Your task to perform on an android device: Open calendar and show me the third week of next month Image 0: 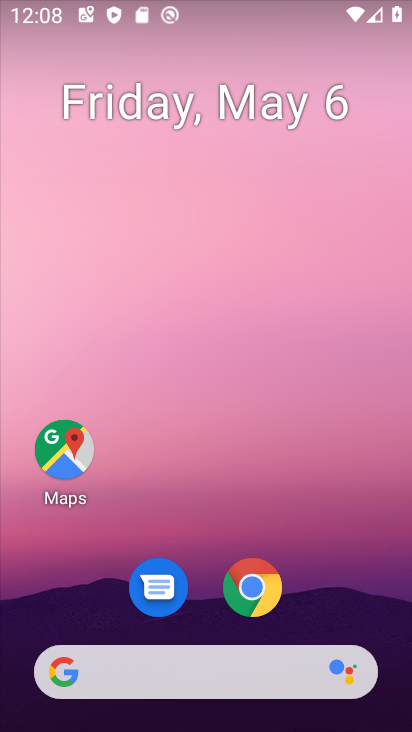
Step 0: drag from (191, 587) to (251, 135)
Your task to perform on an android device: Open calendar and show me the third week of next month Image 1: 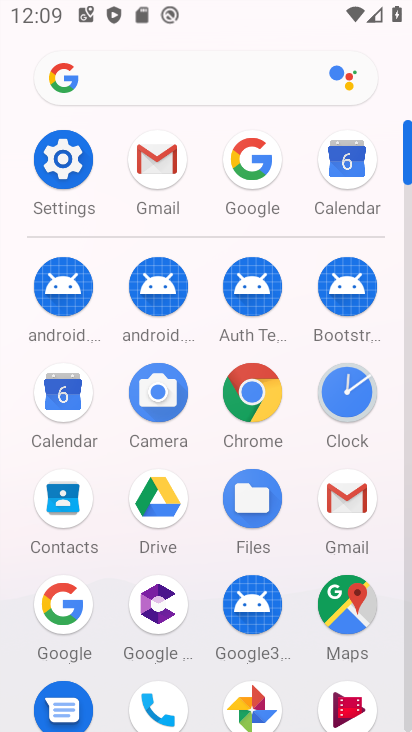
Step 1: click (56, 397)
Your task to perform on an android device: Open calendar and show me the third week of next month Image 2: 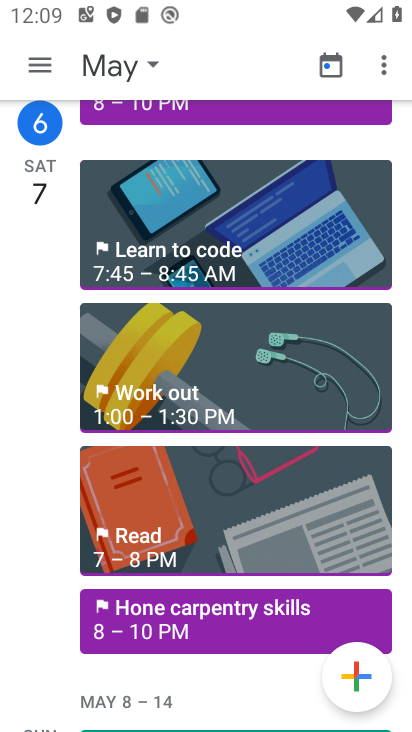
Step 2: click (145, 66)
Your task to perform on an android device: Open calendar and show me the third week of next month Image 3: 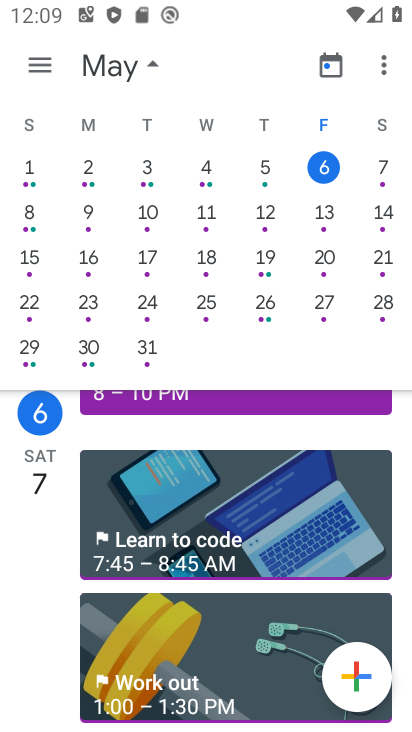
Step 3: drag from (368, 242) to (13, 219)
Your task to perform on an android device: Open calendar and show me the third week of next month Image 4: 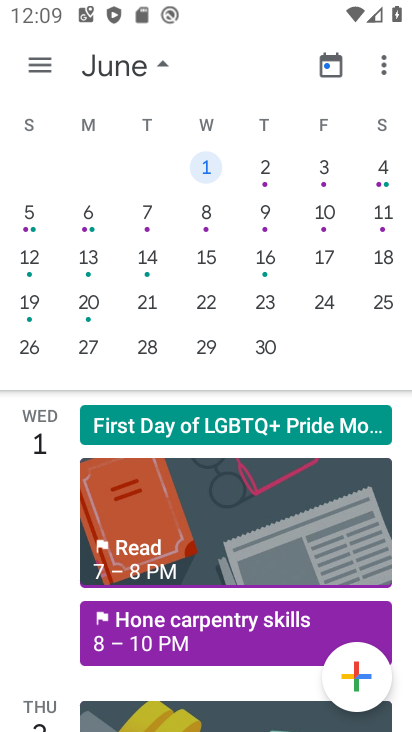
Step 4: click (86, 290)
Your task to perform on an android device: Open calendar and show me the third week of next month Image 5: 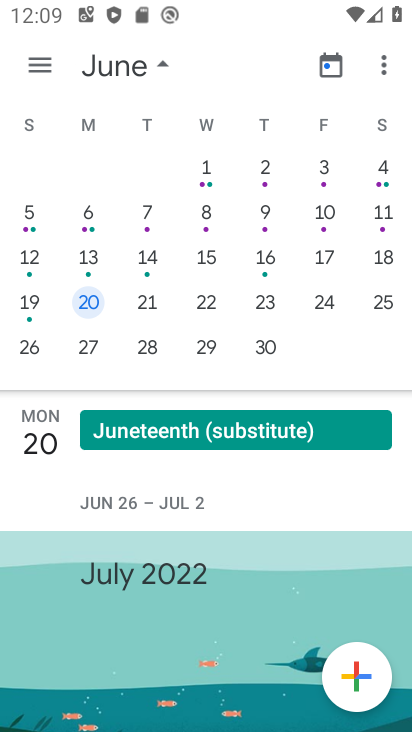
Step 5: click (82, 258)
Your task to perform on an android device: Open calendar and show me the third week of next month Image 6: 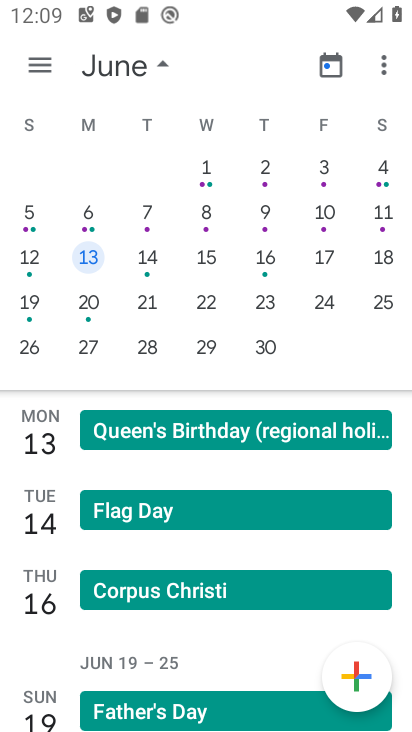
Step 6: task complete